Your task to perform on an android device: Go to Google maps Image 0: 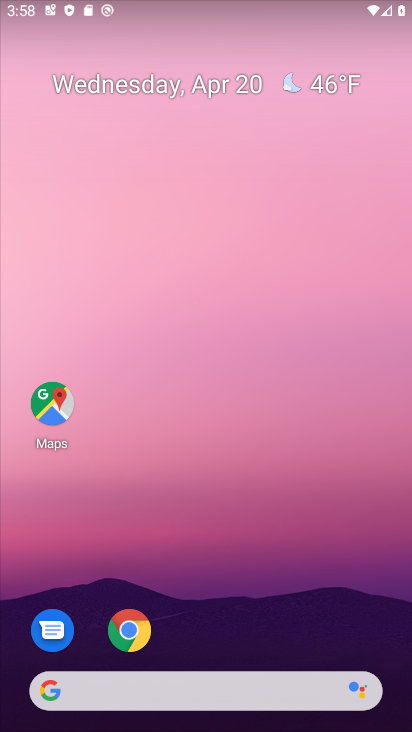
Step 0: drag from (204, 671) to (207, 270)
Your task to perform on an android device: Go to Google maps Image 1: 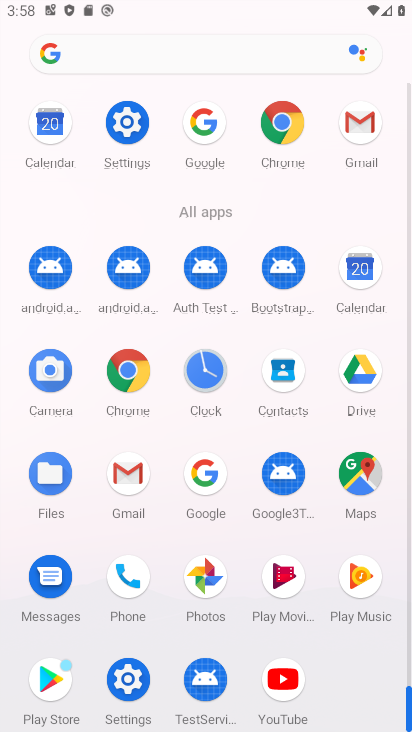
Step 1: click (374, 482)
Your task to perform on an android device: Go to Google maps Image 2: 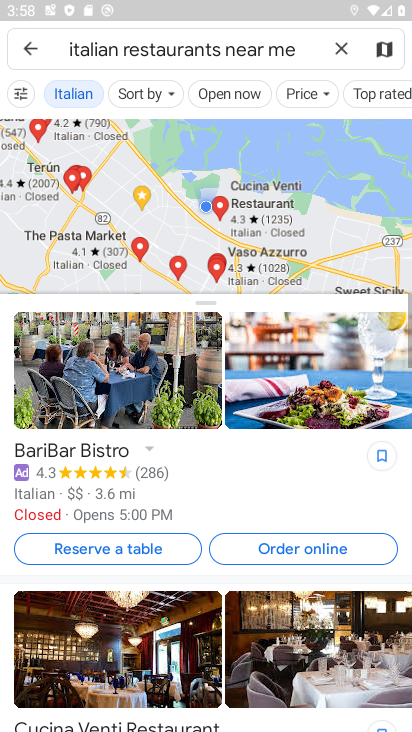
Step 2: click (340, 51)
Your task to perform on an android device: Go to Google maps Image 3: 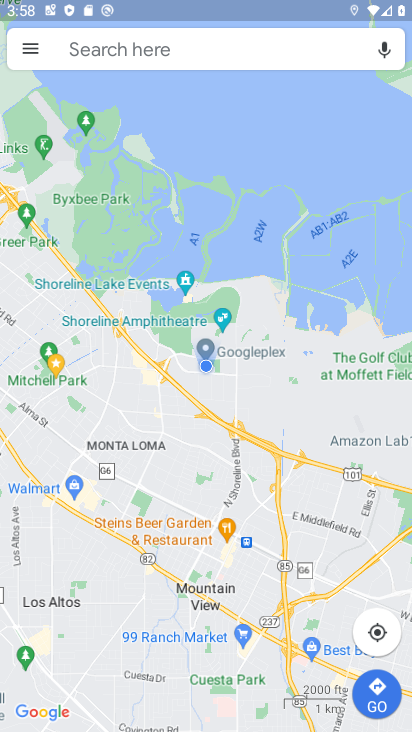
Step 3: click (139, 52)
Your task to perform on an android device: Go to Google maps Image 4: 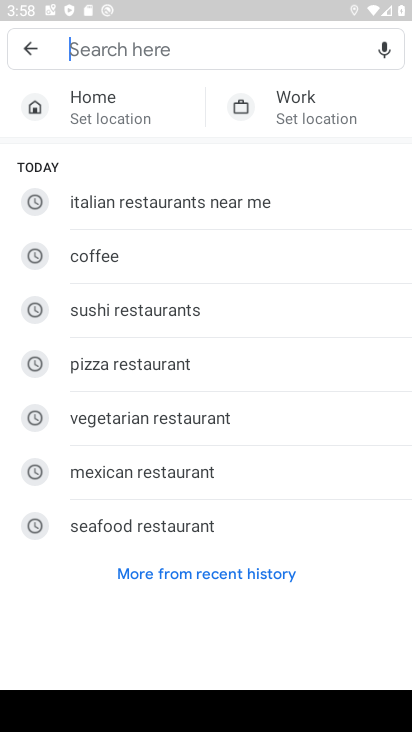
Step 4: task complete